Your task to perform on an android device: Go to CNN.com Image 0: 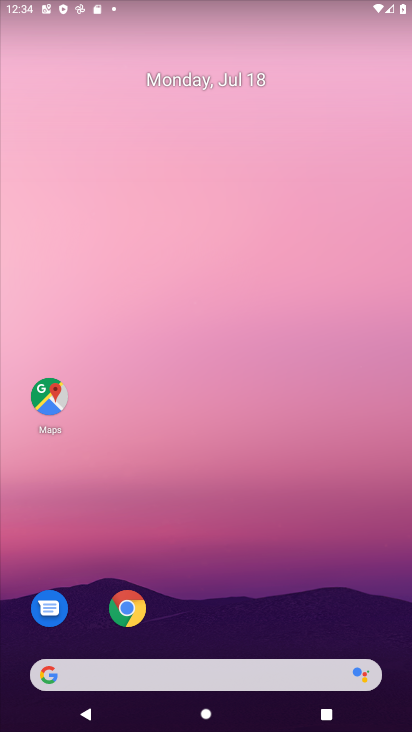
Step 0: drag from (372, 633) to (199, 1)
Your task to perform on an android device: Go to CNN.com Image 1: 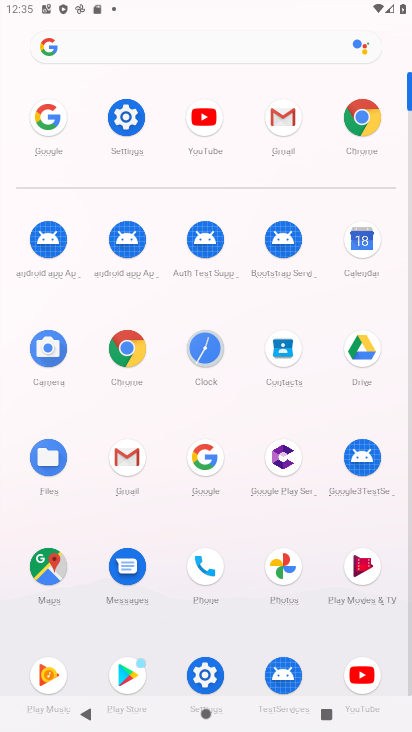
Step 1: click (202, 454)
Your task to perform on an android device: Go to CNN.com Image 2: 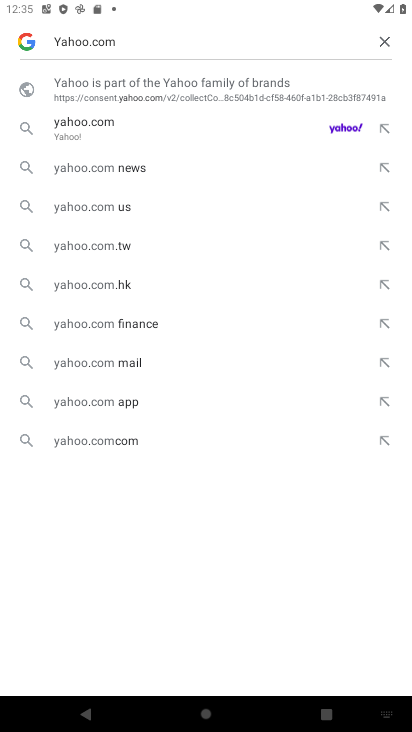
Step 2: press back button
Your task to perform on an android device: Go to CNN.com Image 3: 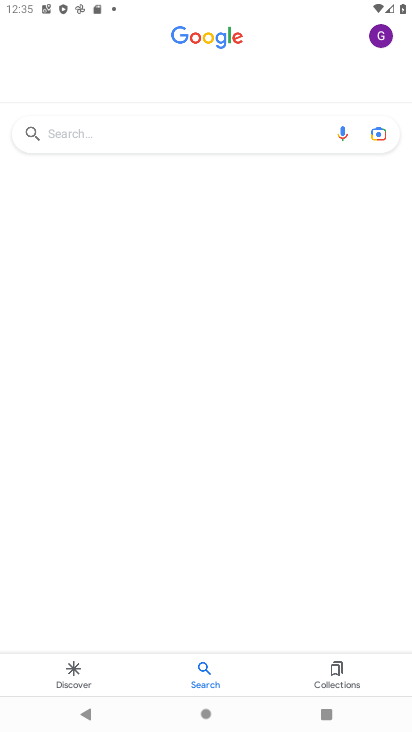
Step 3: click (108, 137)
Your task to perform on an android device: Go to CNN.com Image 4: 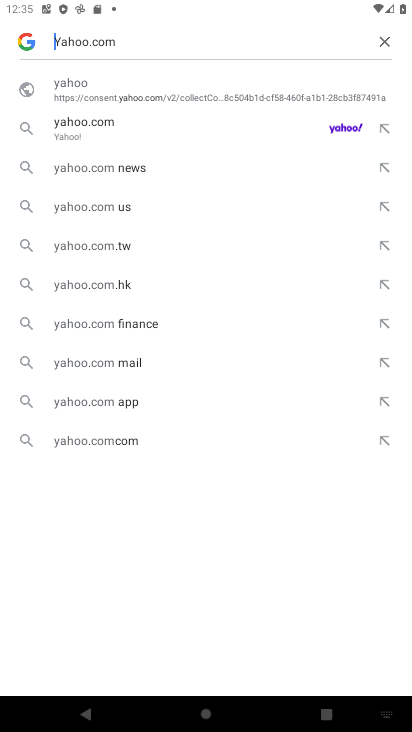
Step 4: click (381, 47)
Your task to perform on an android device: Go to CNN.com Image 5: 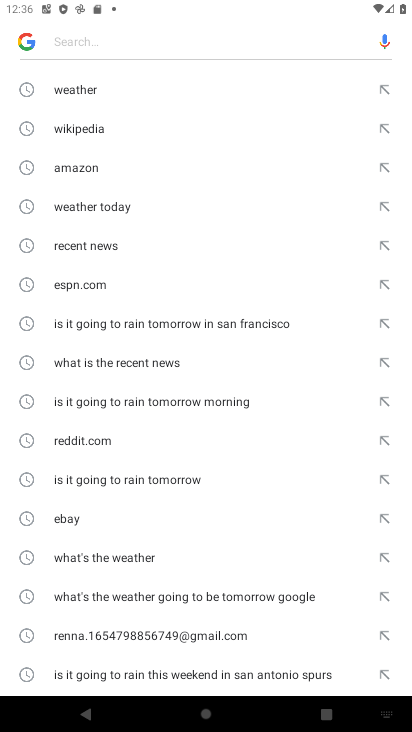
Step 5: type "CNN.com"
Your task to perform on an android device: Go to CNN.com Image 6: 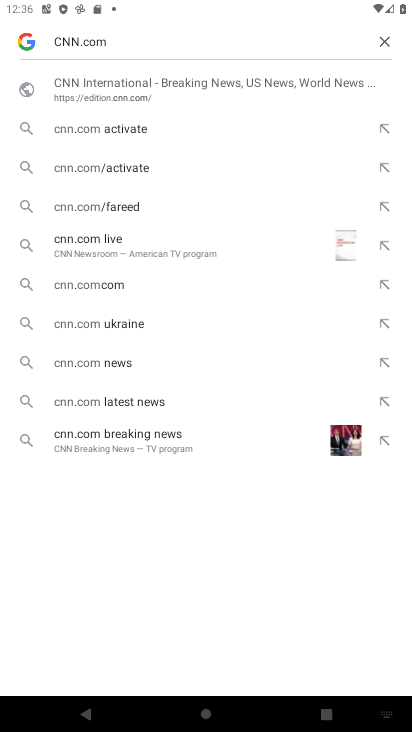
Step 6: click (142, 101)
Your task to perform on an android device: Go to CNN.com Image 7: 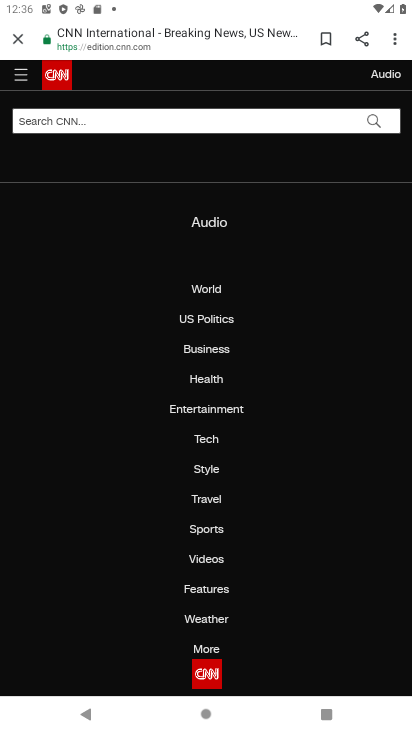
Step 7: task complete